Your task to perform on an android device: Add usb-a to usb-b to the cart on newegg, then select checkout. Image 0: 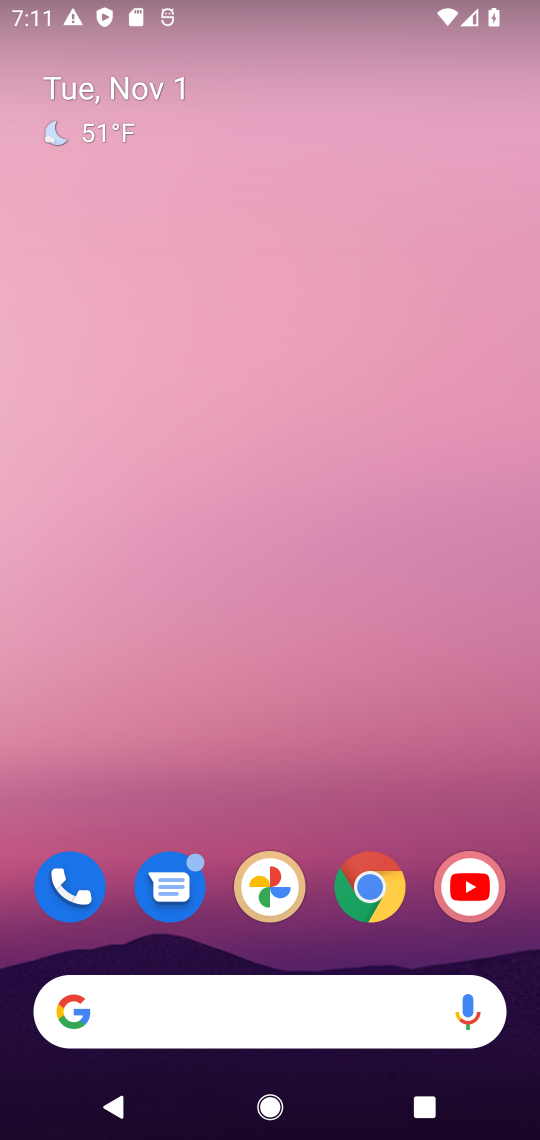
Step 0: drag from (254, 900) to (275, 102)
Your task to perform on an android device: Add usb-a to usb-b to the cart on newegg, then select checkout. Image 1: 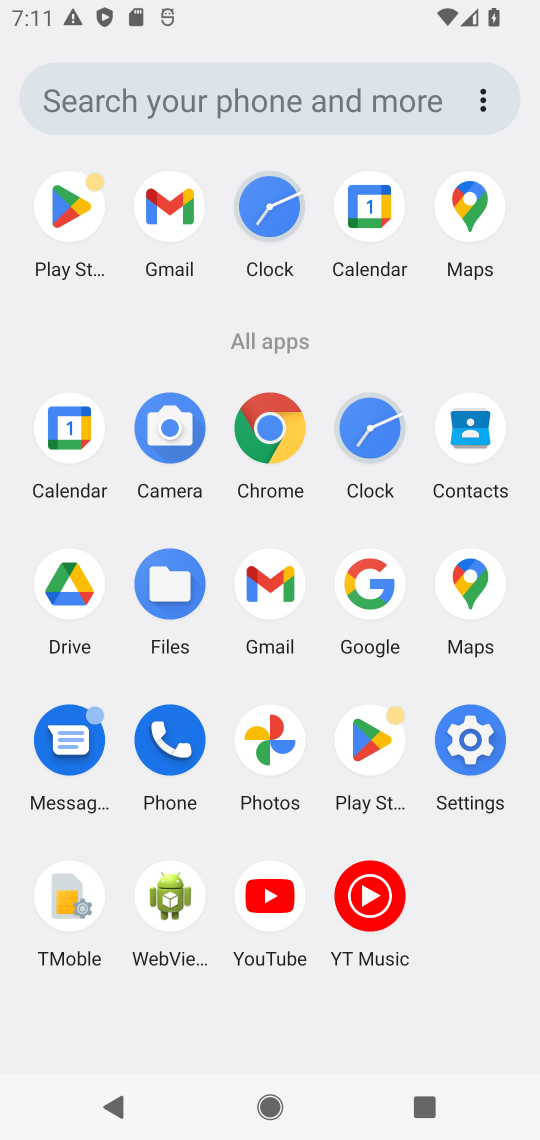
Step 1: click (350, 566)
Your task to perform on an android device: Add usb-a to usb-b to the cart on newegg, then select checkout. Image 2: 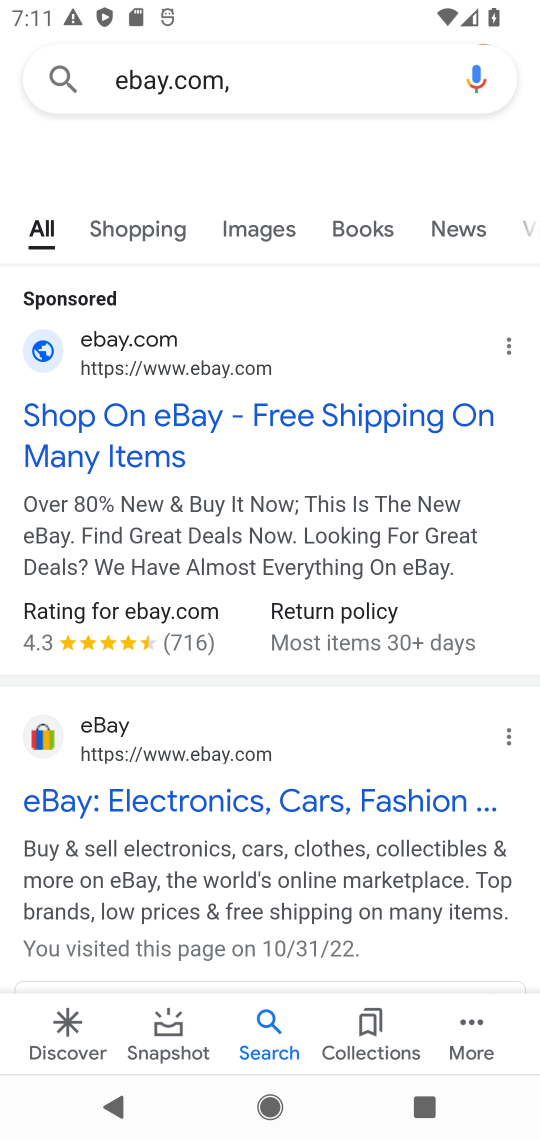
Step 2: click (303, 96)
Your task to perform on an android device: Add usb-a to usb-b to the cart on newegg, then select checkout. Image 3: 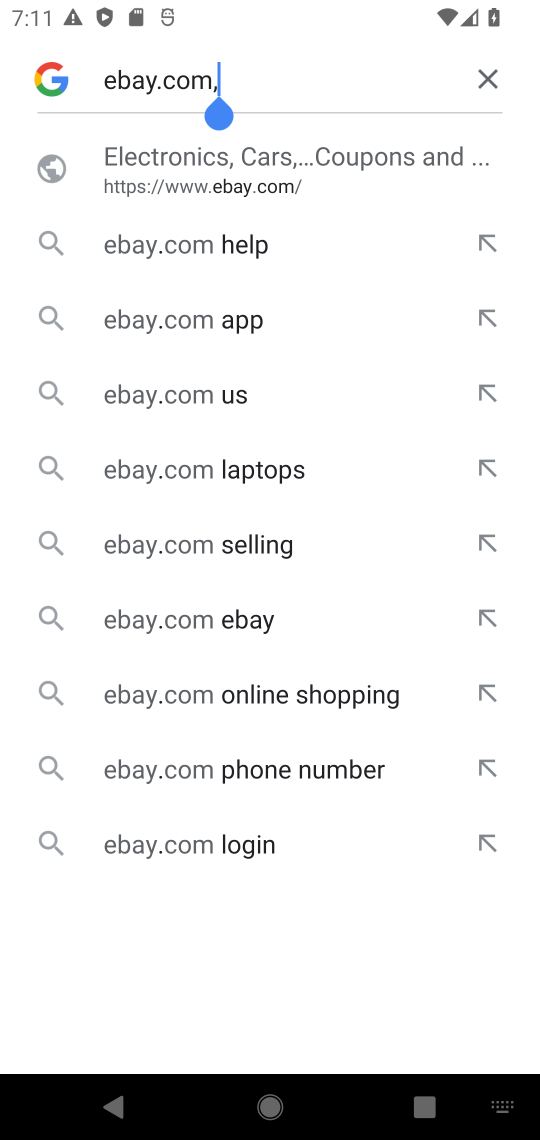
Step 3: click (491, 69)
Your task to perform on an android device: Add usb-a to usb-b to the cart on newegg, then select checkout. Image 4: 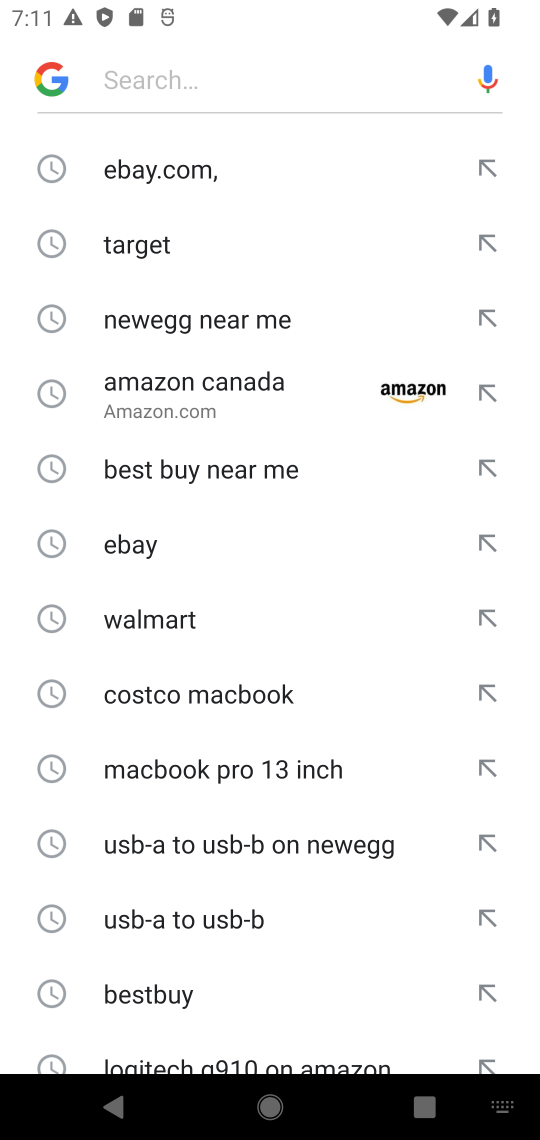
Step 4: click (156, 78)
Your task to perform on an android device: Add usb-a to usb-b to the cart on newegg, then select checkout. Image 5: 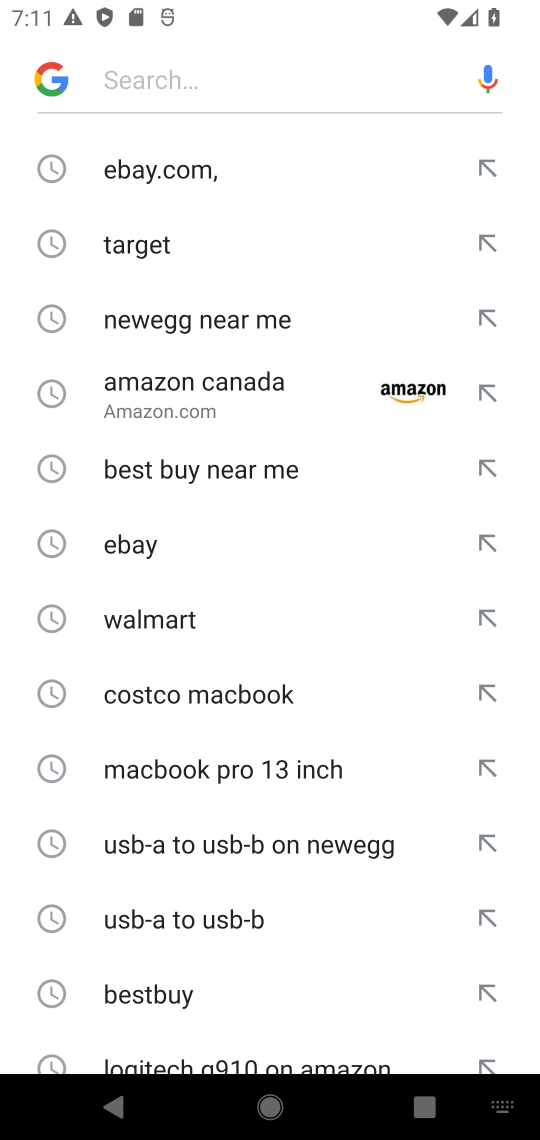
Step 5: type "newegg "
Your task to perform on an android device: Add usb-a to usb-b to the cart on newegg, then select checkout. Image 6: 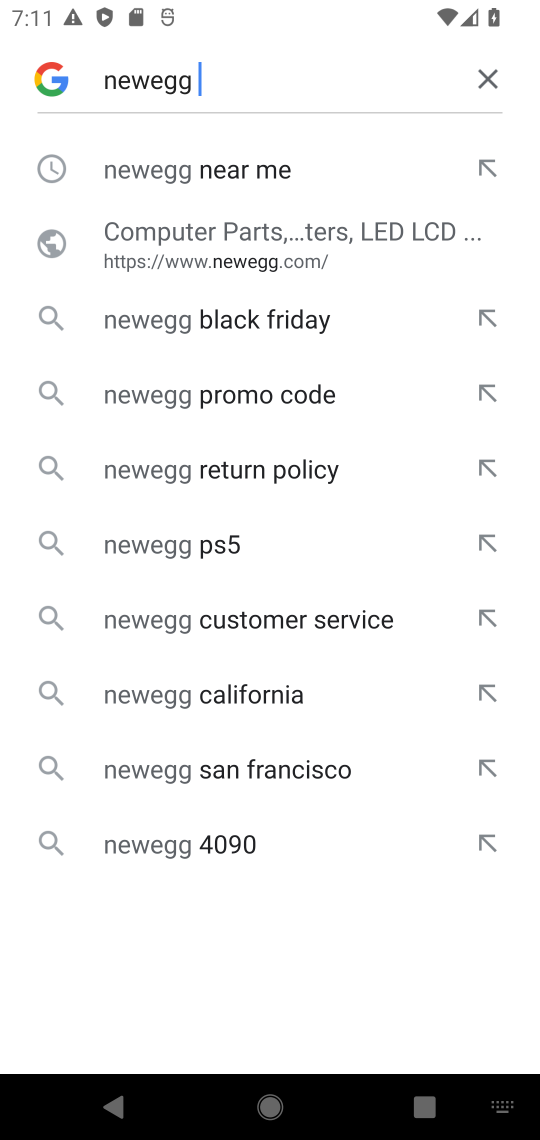
Step 6: click (168, 172)
Your task to perform on an android device: Add usb-a to usb-b to the cart on newegg, then select checkout. Image 7: 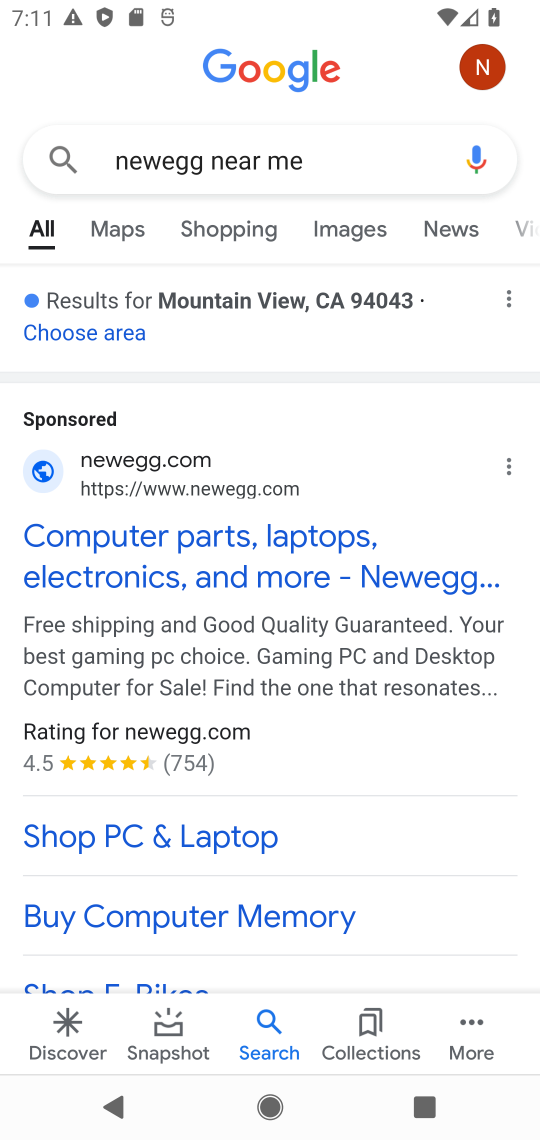
Step 7: click (114, 532)
Your task to perform on an android device: Add usb-a to usb-b to the cart on newegg, then select checkout. Image 8: 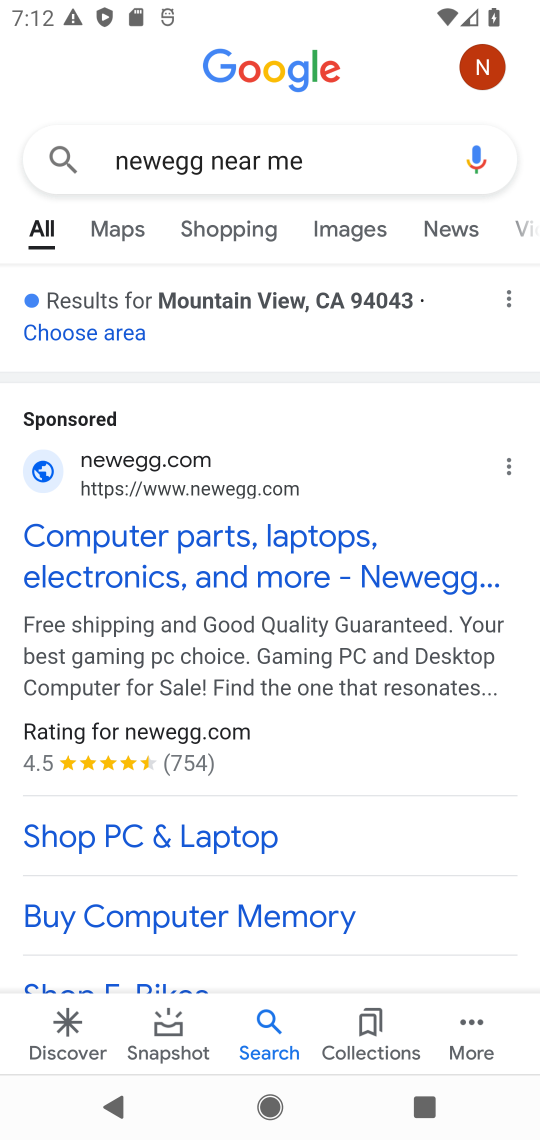
Step 8: drag from (215, 684) to (235, 369)
Your task to perform on an android device: Add usb-a to usb-b to the cart on newegg, then select checkout. Image 9: 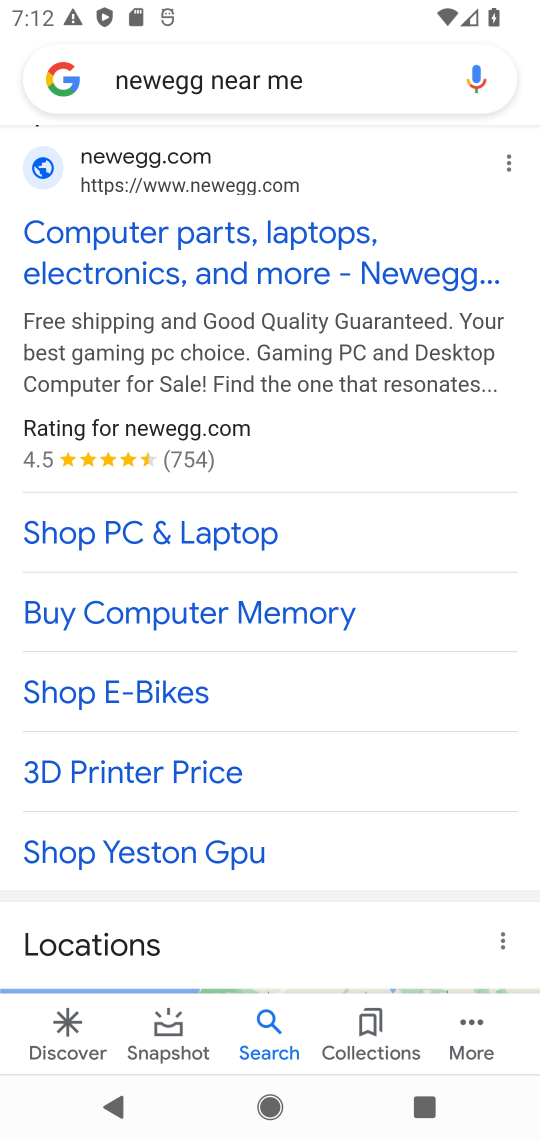
Step 9: drag from (67, 820) to (137, 429)
Your task to perform on an android device: Add usb-a to usb-b to the cart on newegg, then select checkout. Image 10: 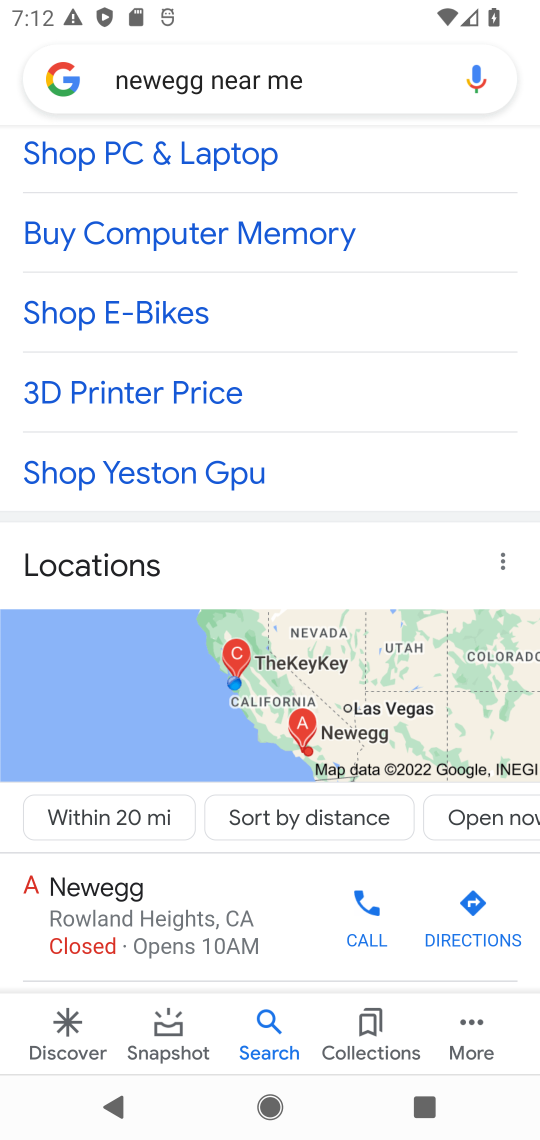
Step 10: drag from (182, 852) to (229, 196)
Your task to perform on an android device: Add usb-a to usb-b to the cart on newegg, then select checkout. Image 11: 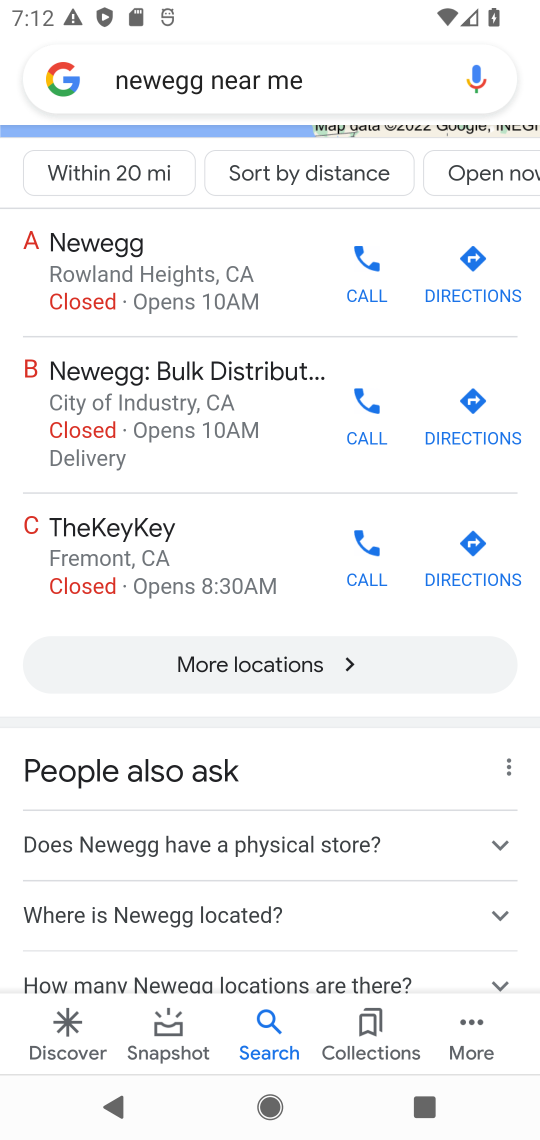
Step 11: drag from (254, 651) to (310, 165)
Your task to perform on an android device: Add usb-a to usb-b to the cart on newegg, then select checkout. Image 12: 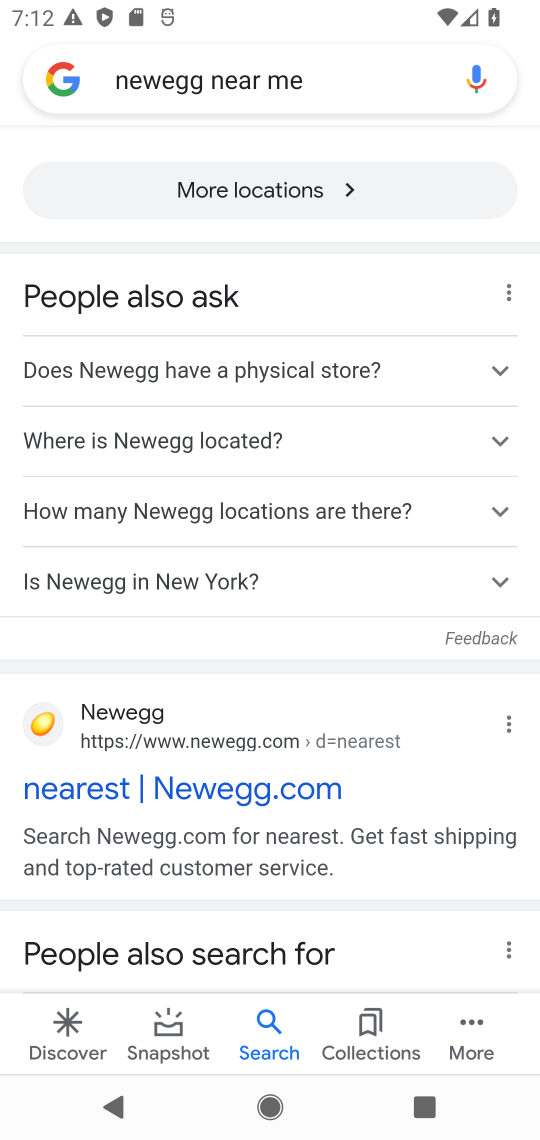
Step 12: click (39, 722)
Your task to perform on an android device: Add usb-a to usb-b to the cart on newegg, then select checkout. Image 13: 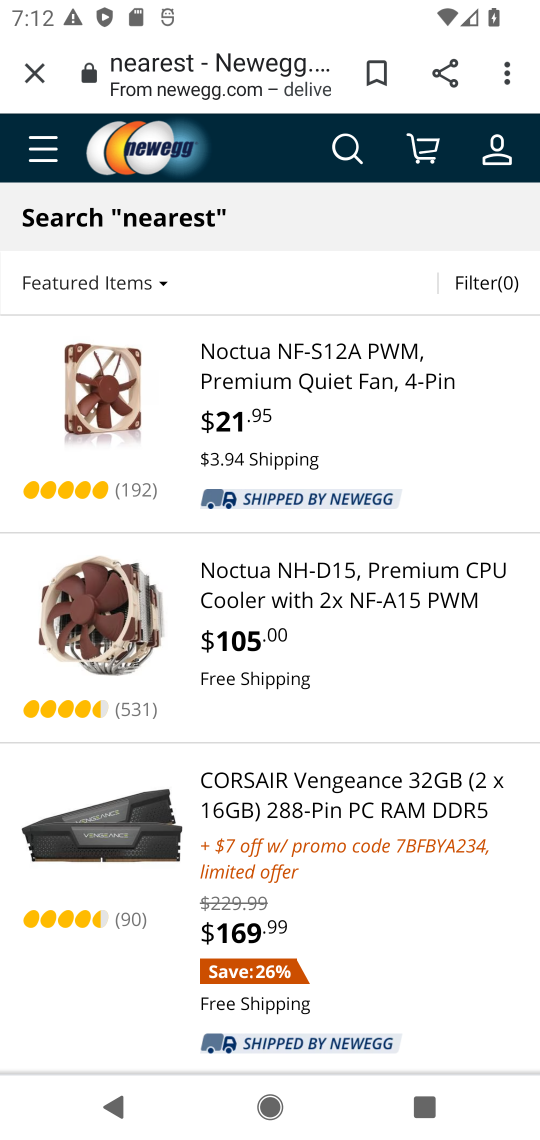
Step 13: click (330, 164)
Your task to perform on an android device: Add usb-a to usb-b to the cart on newegg, then select checkout. Image 14: 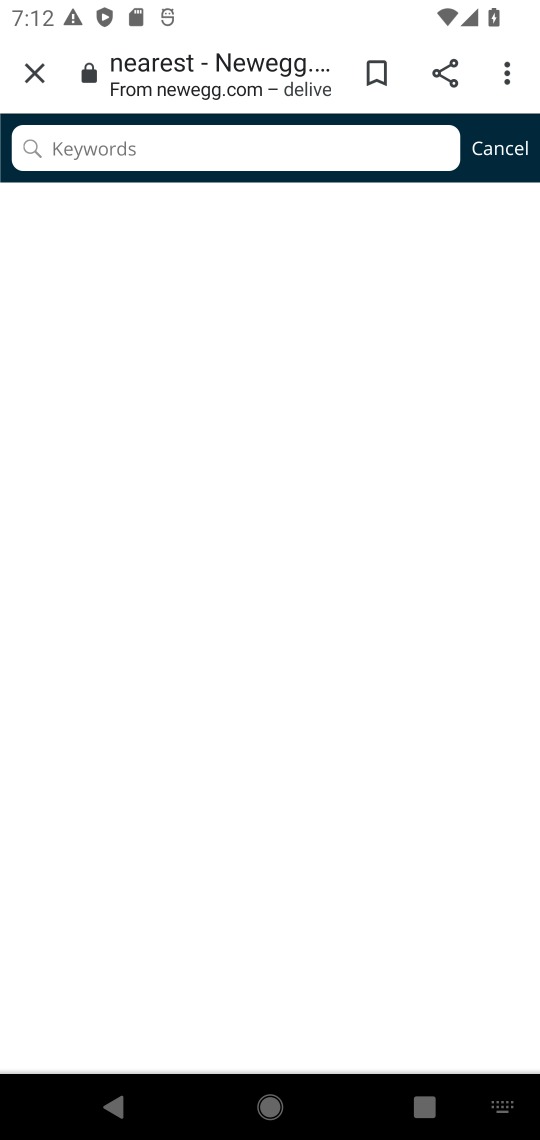
Step 14: click (196, 135)
Your task to perform on an android device: Add usb-a to usb-b to the cart on newegg, then select checkout. Image 15: 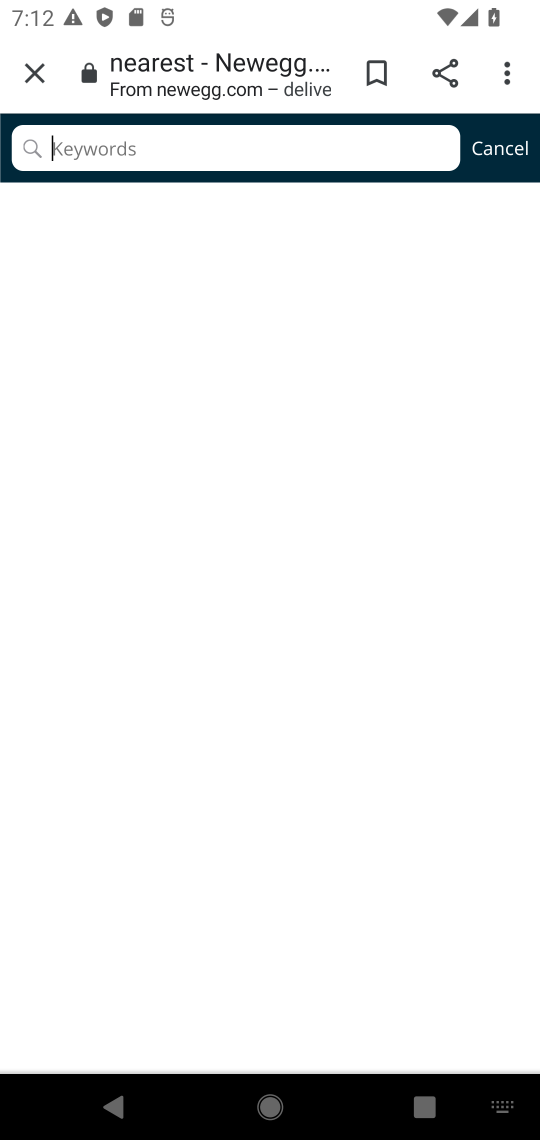
Step 15: type "usb-a to usb-b  "
Your task to perform on an android device: Add usb-a to usb-b to the cart on newegg, then select checkout. Image 16: 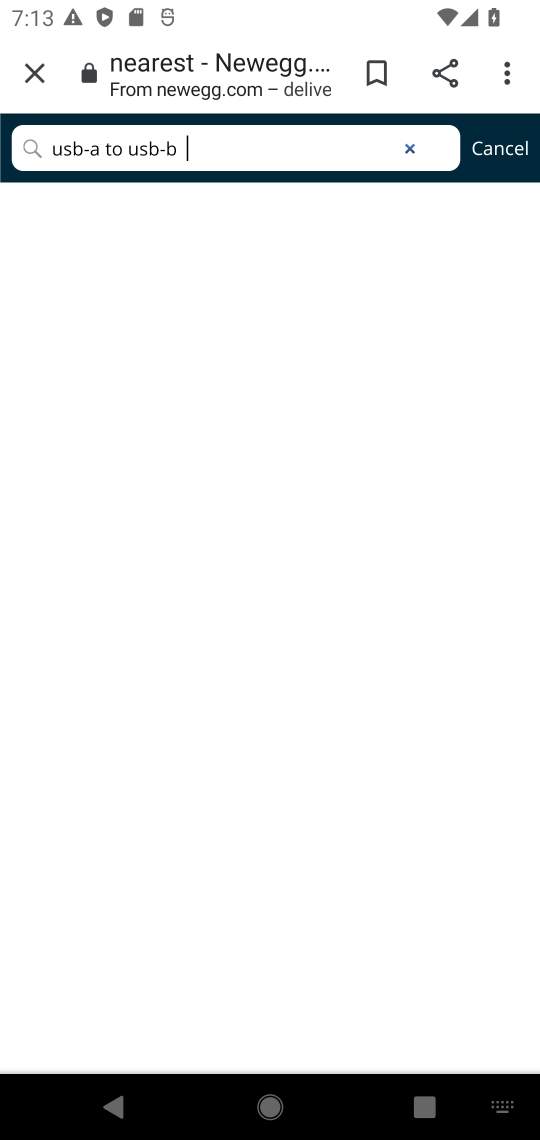
Step 16: task complete